Your task to perform on an android device: find which apps use the phone's location Image 0: 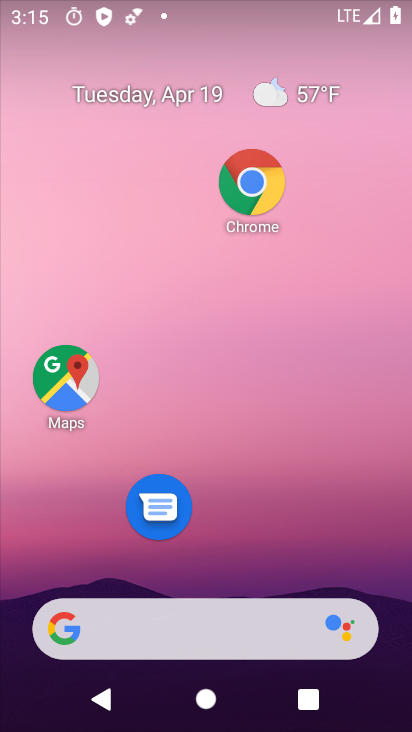
Step 0: drag from (350, 440) to (402, 36)
Your task to perform on an android device: find which apps use the phone's location Image 1: 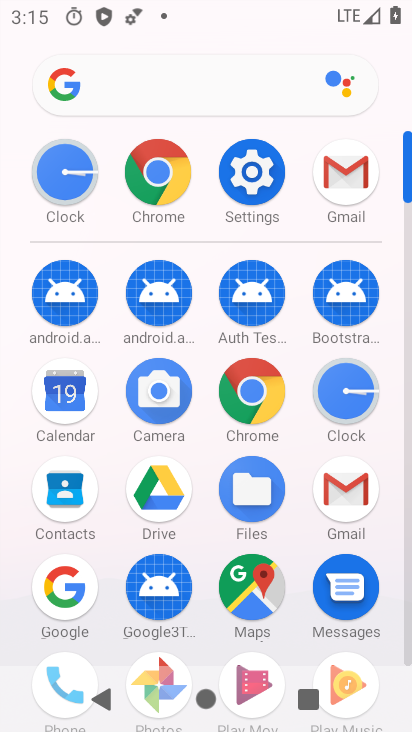
Step 1: click (268, 185)
Your task to perform on an android device: find which apps use the phone's location Image 2: 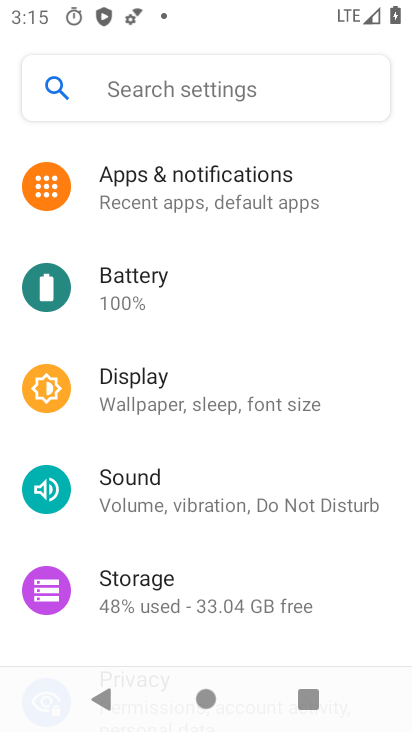
Step 2: drag from (232, 483) to (249, 224)
Your task to perform on an android device: find which apps use the phone's location Image 3: 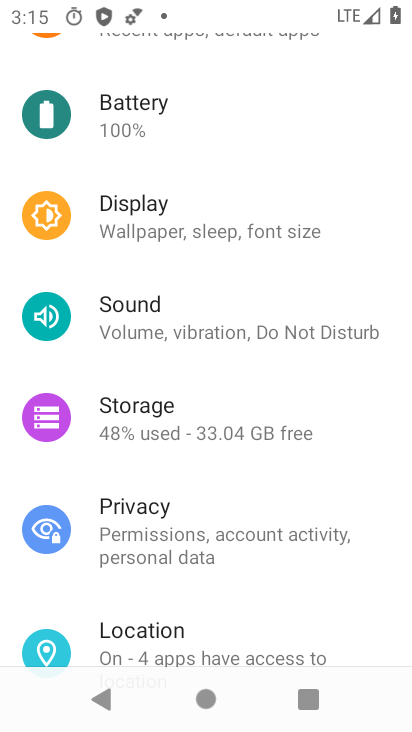
Step 3: click (236, 651)
Your task to perform on an android device: find which apps use the phone's location Image 4: 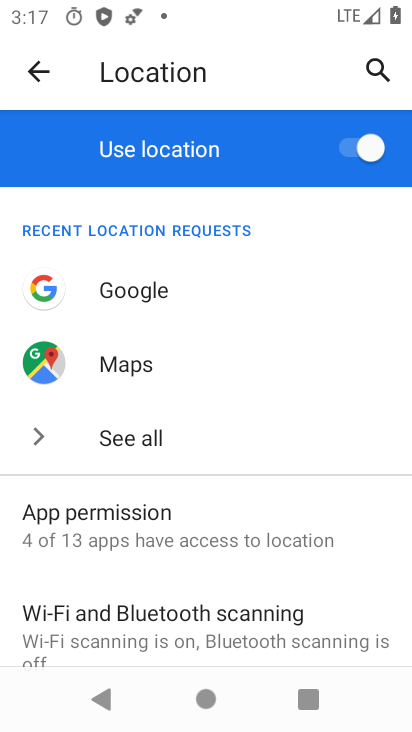
Step 4: click (187, 529)
Your task to perform on an android device: find which apps use the phone's location Image 5: 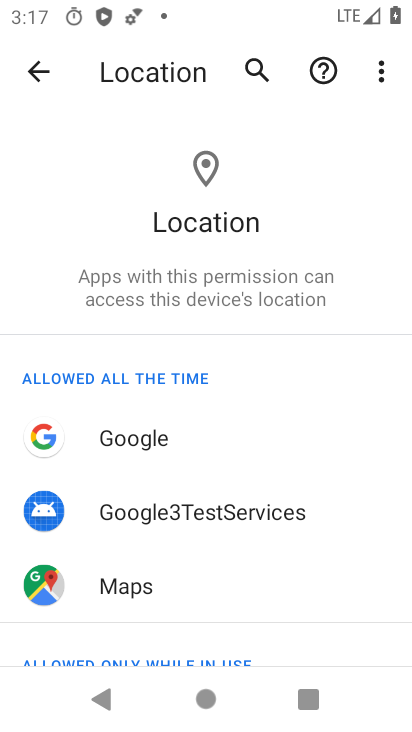
Step 5: task complete